Your task to perform on an android device: open app "PUBG MOBILE" (install if not already installed) and go to login screen Image 0: 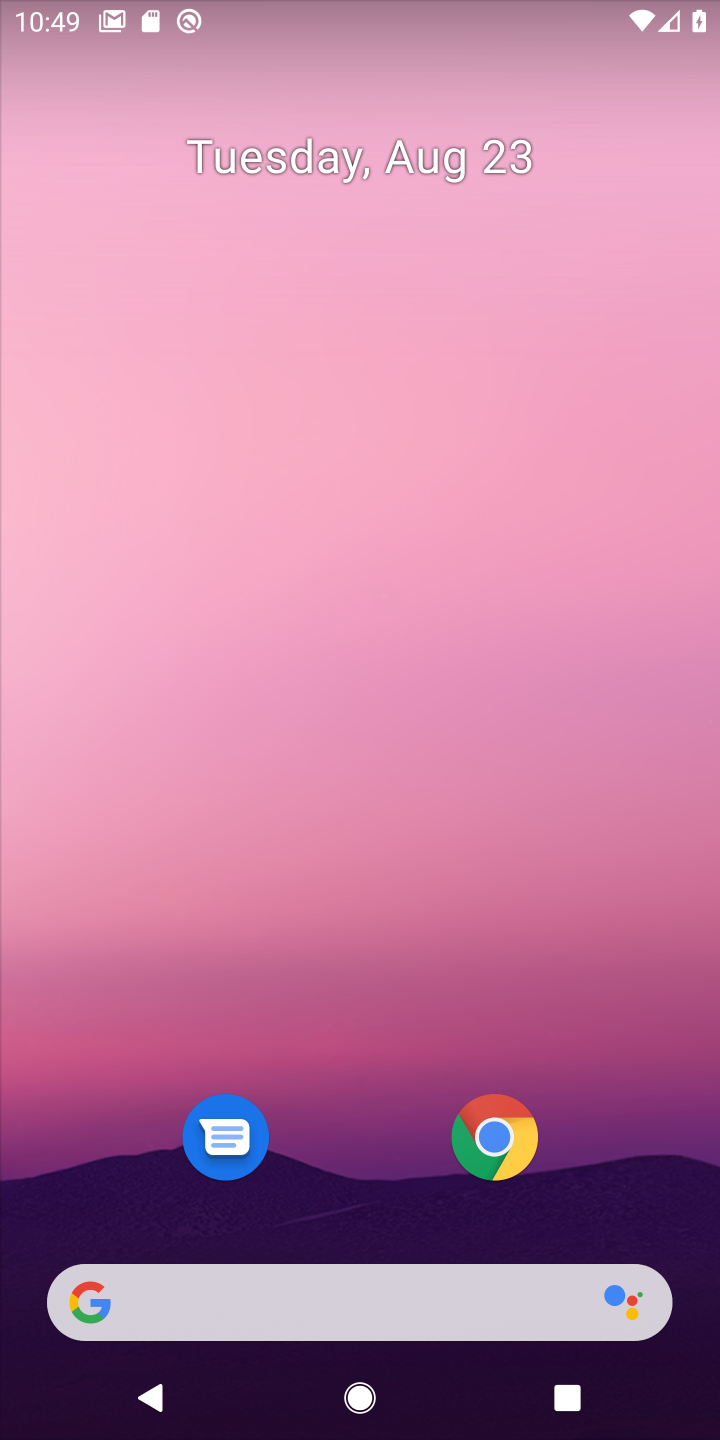
Step 0: drag from (317, 1223) to (710, 232)
Your task to perform on an android device: open app "PUBG MOBILE" (install if not already installed) and go to login screen Image 1: 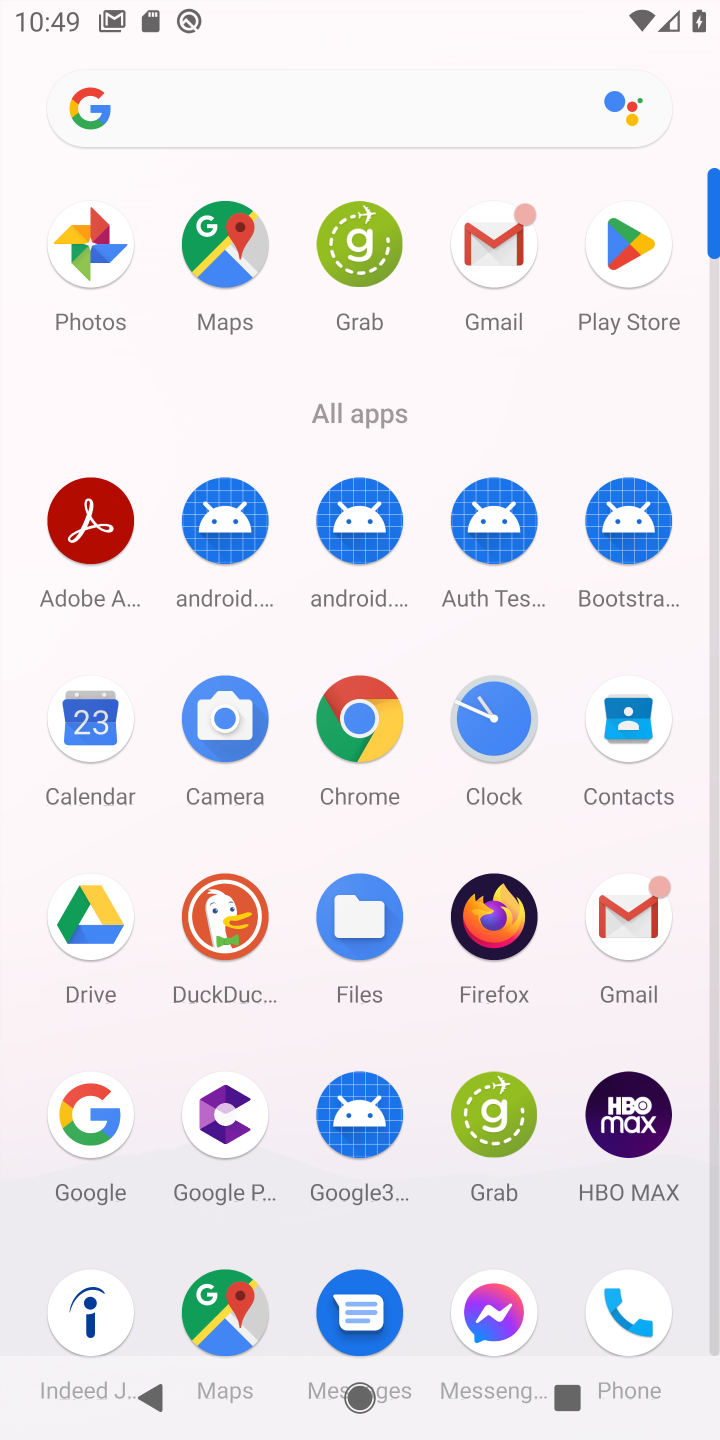
Step 1: click (636, 303)
Your task to perform on an android device: open app "PUBG MOBILE" (install if not already installed) and go to login screen Image 2: 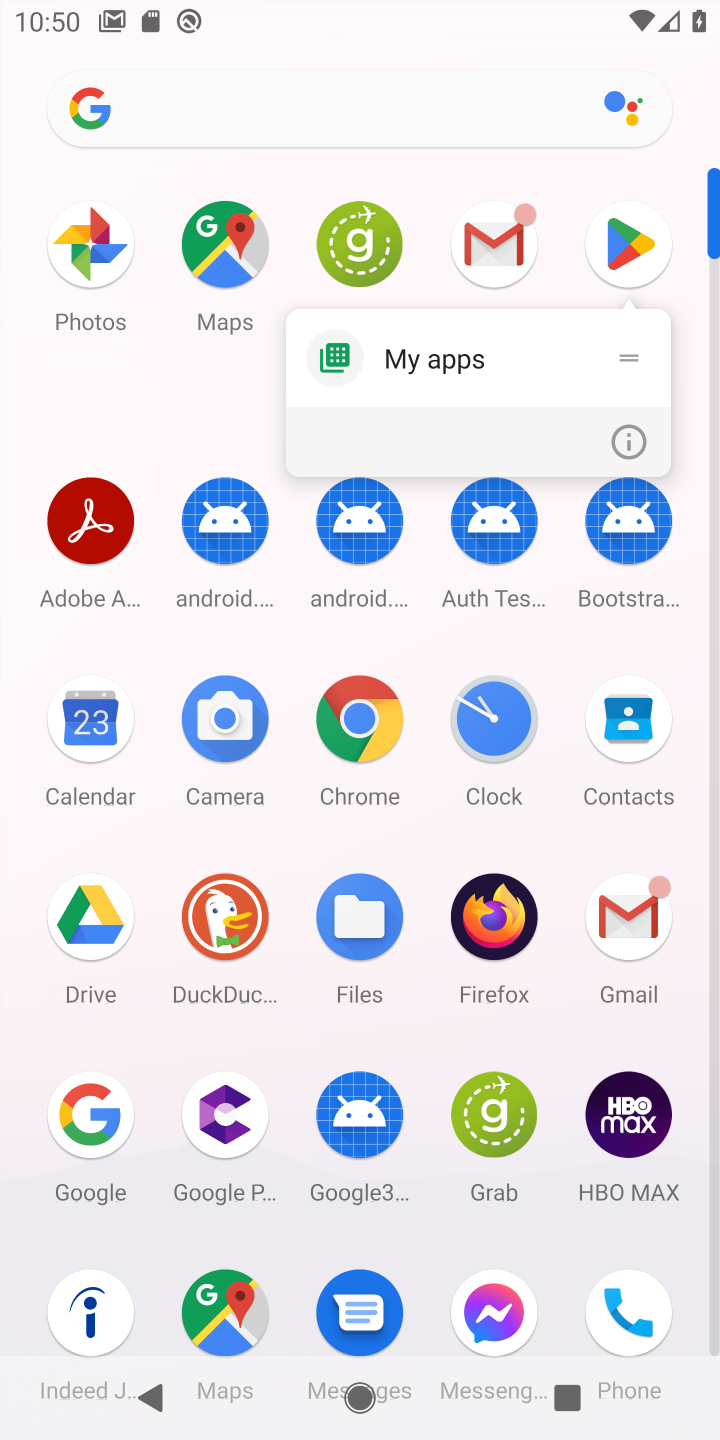
Step 2: click (628, 252)
Your task to perform on an android device: open app "PUBG MOBILE" (install if not already installed) and go to login screen Image 3: 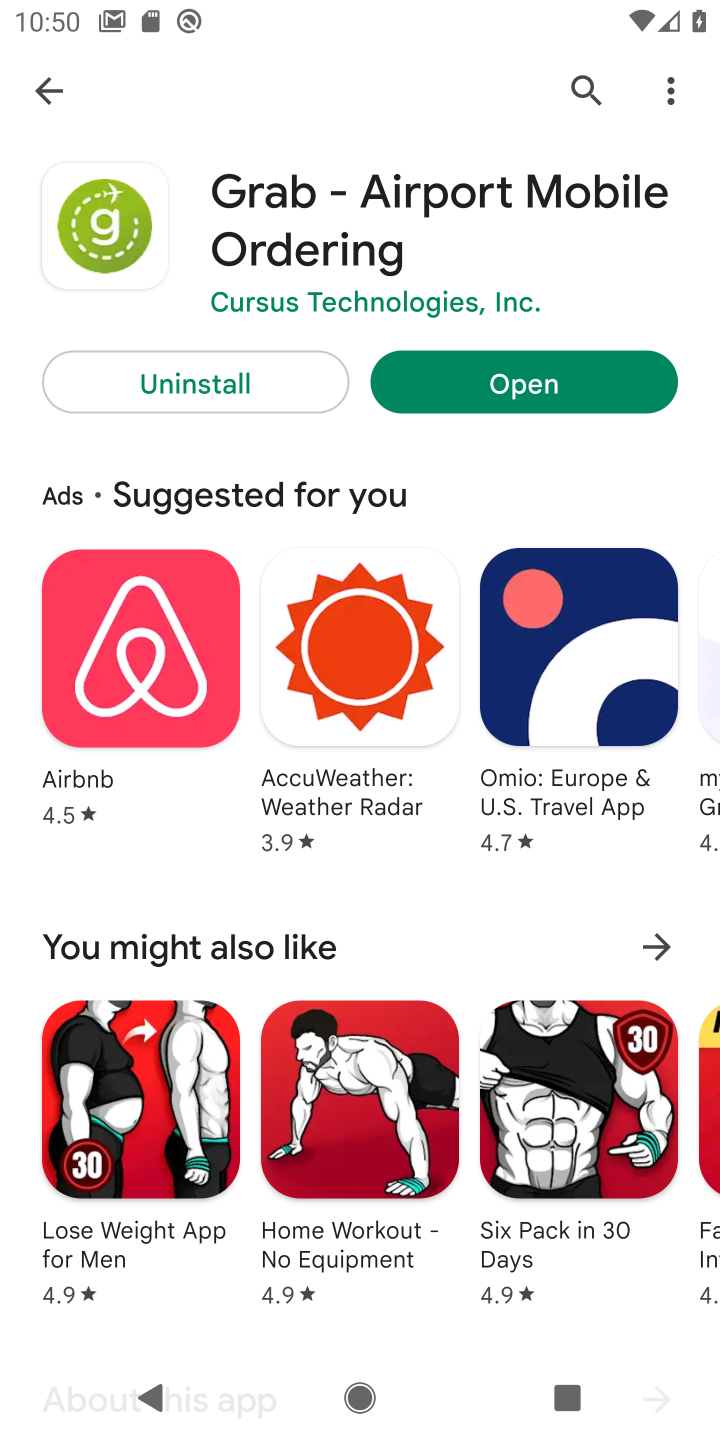
Step 3: click (45, 77)
Your task to perform on an android device: open app "PUBG MOBILE" (install if not already installed) and go to login screen Image 4: 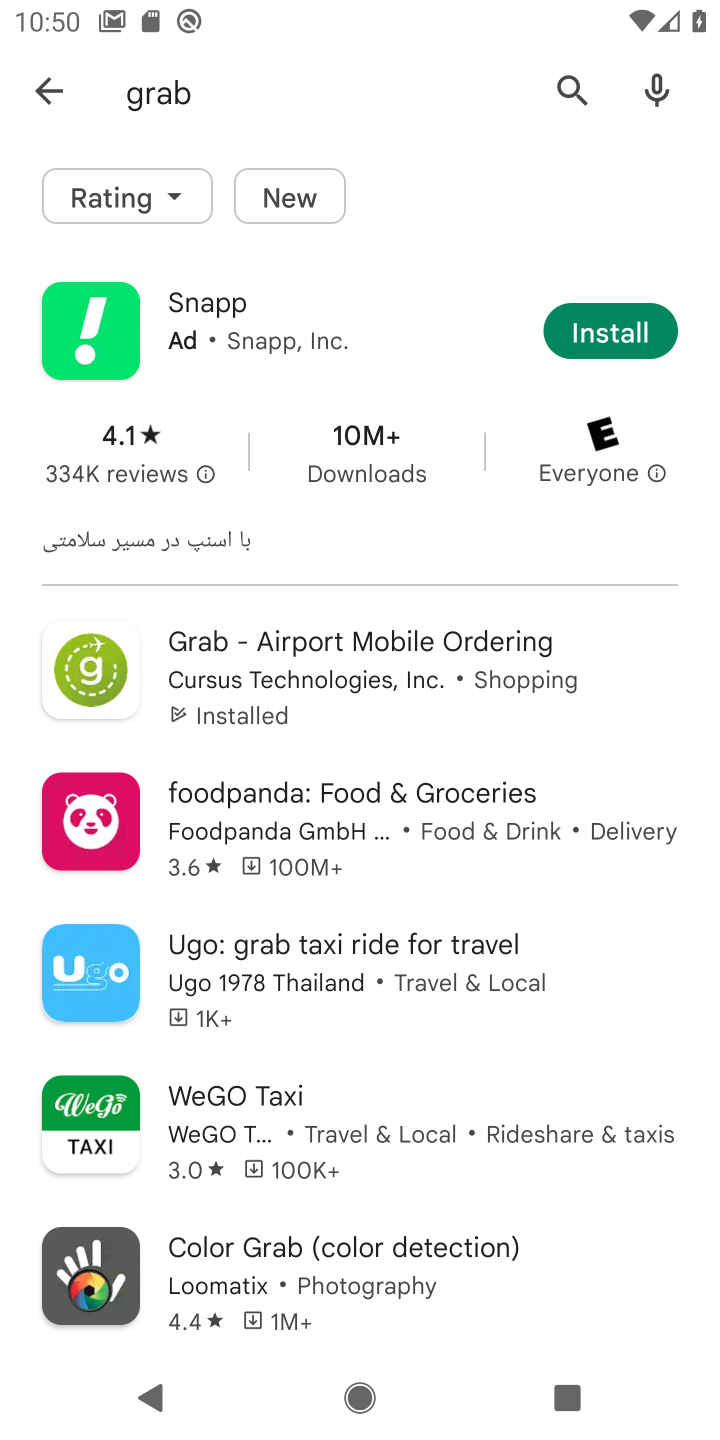
Step 4: click (247, 106)
Your task to perform on an android device: open app "PUBG MOBILE" (install if not already installed) and go to login screen Image 5: 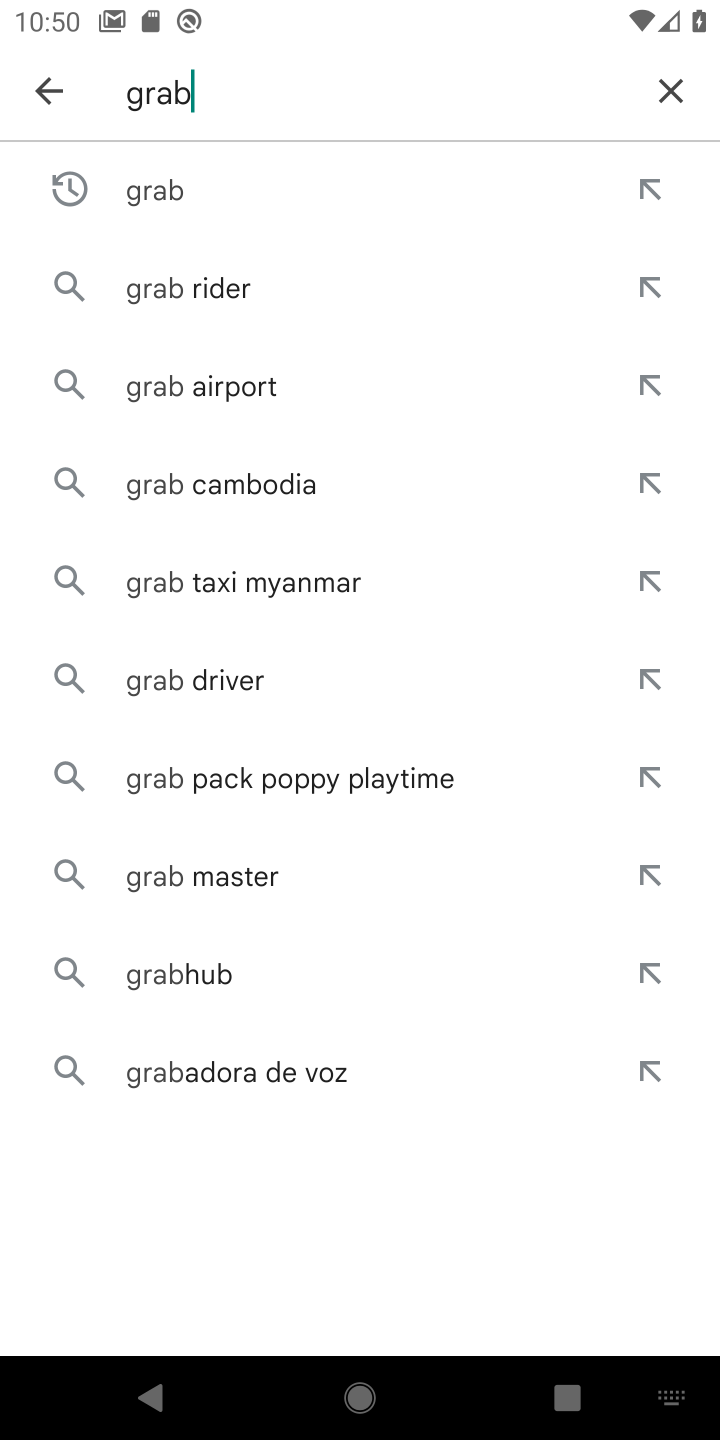
Step 5: click (669, 94)
Your task to perform on an android device: open app "PUBG MOBILE" (install if not already installed) and go to login screen Image 6: 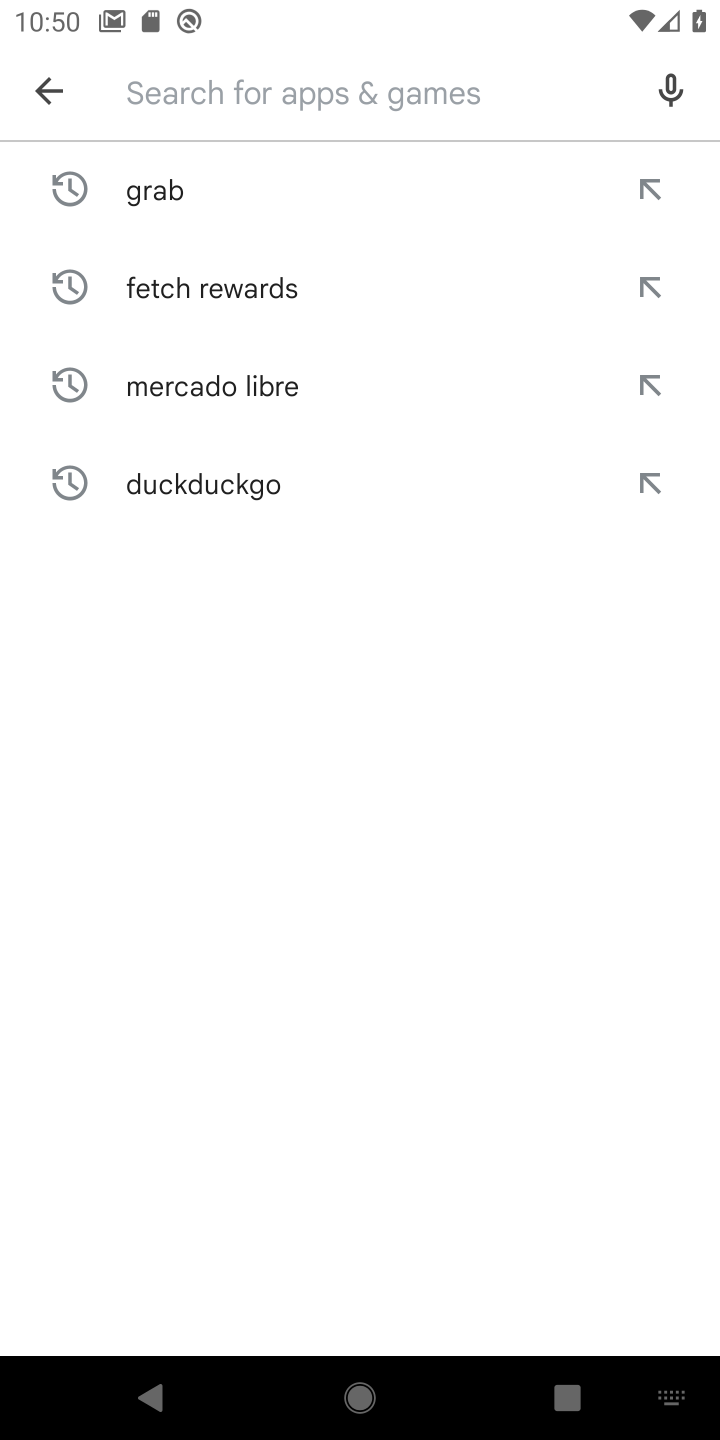
Step 6: type "PUBG Mobile"
Your task to perform on an android device: open app "PUBG MOBILE" (install if not already installed) and go to login screen Image 7: 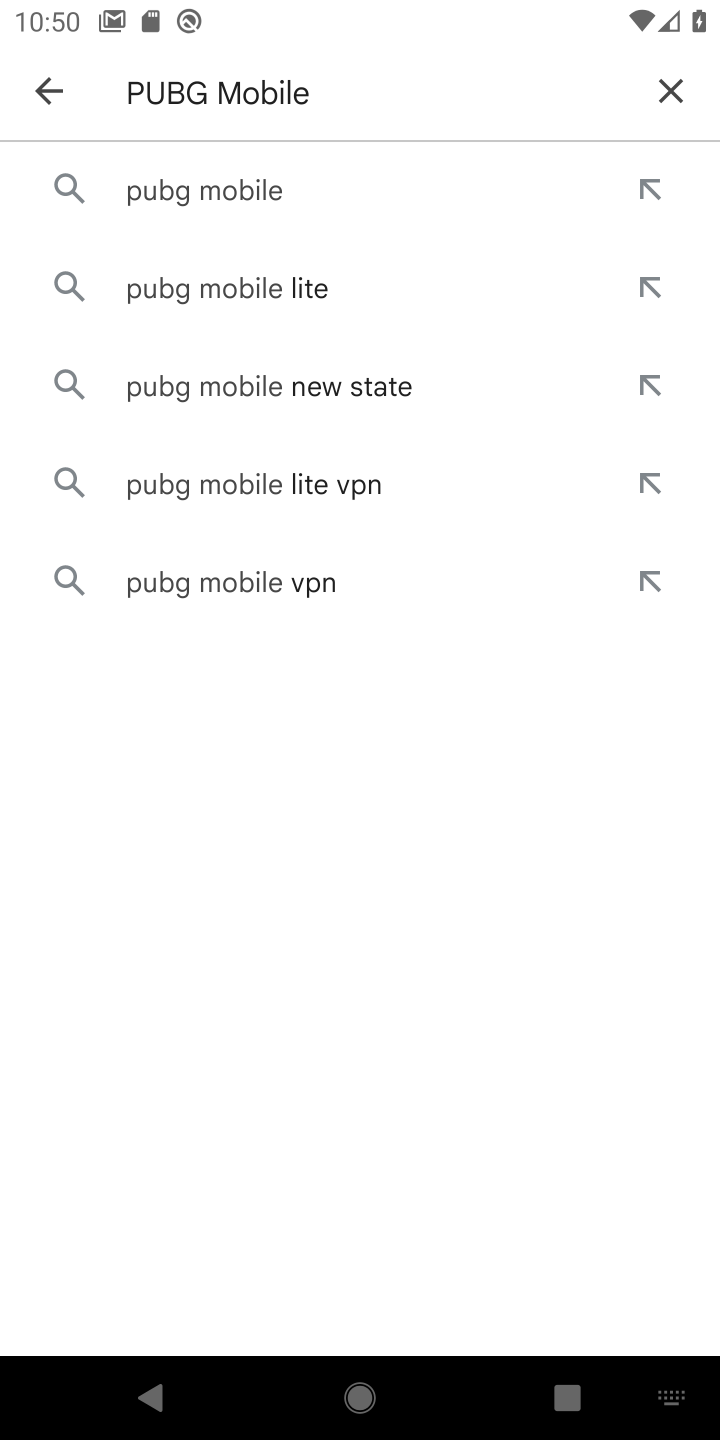
Step 7: click (263, 199)
Your task to perform on an android device: open app "PUBG MOBILE" (install if not already installed) and go to login screen Image 8: 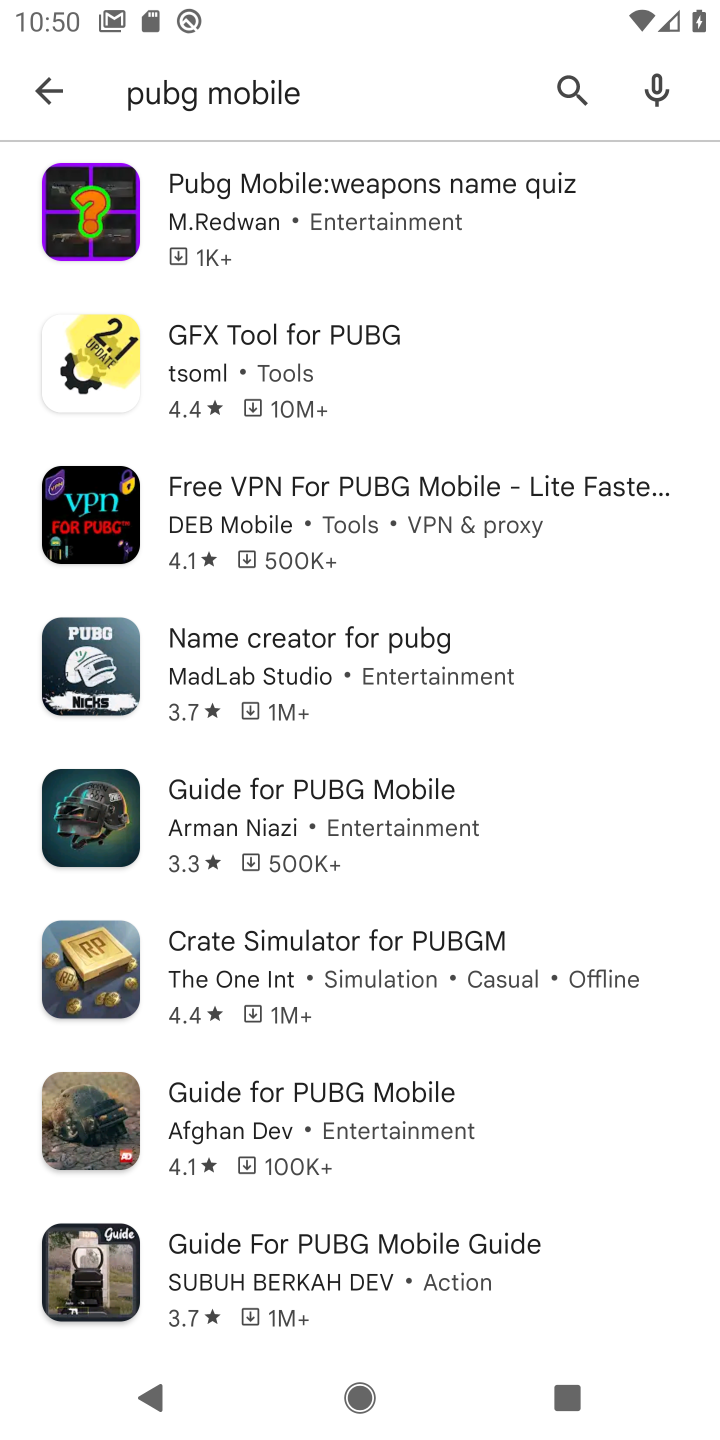
Step 8: task complete